Your task to perform on an android device: change the clock display to analog Image 0: 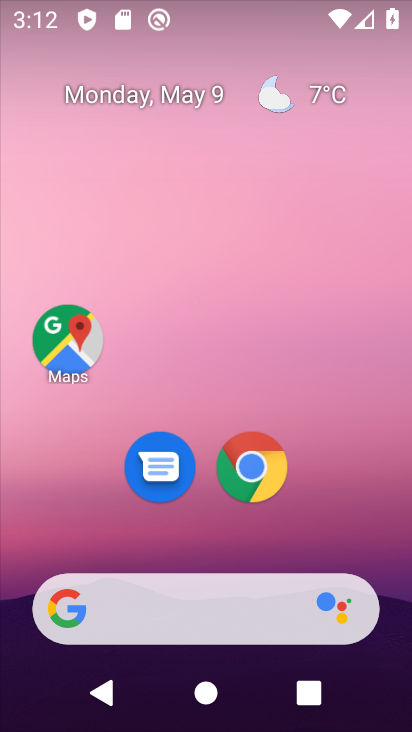
Step 0: drag from (350, 523) to (344, 153)
Your task to perform on an android device: change the clock display to analog Image 1: 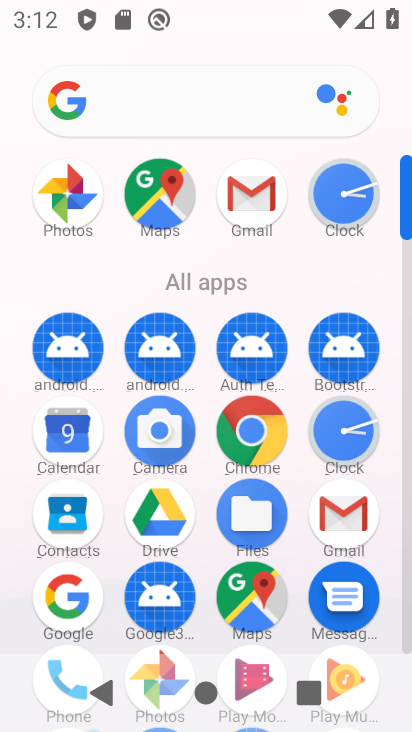
Step 1: click (353, 429)
Your task to perform on an android device: change the clock display to analog Image 2: 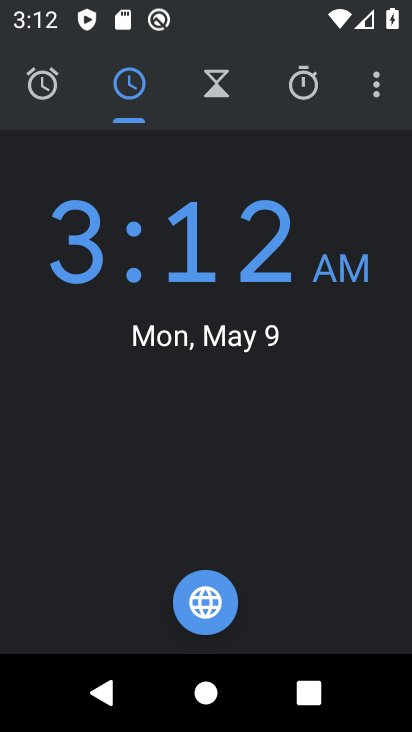
Step 2: click (370, 91)
Your task to perform on an android device: change the clock display to analog Image 3: 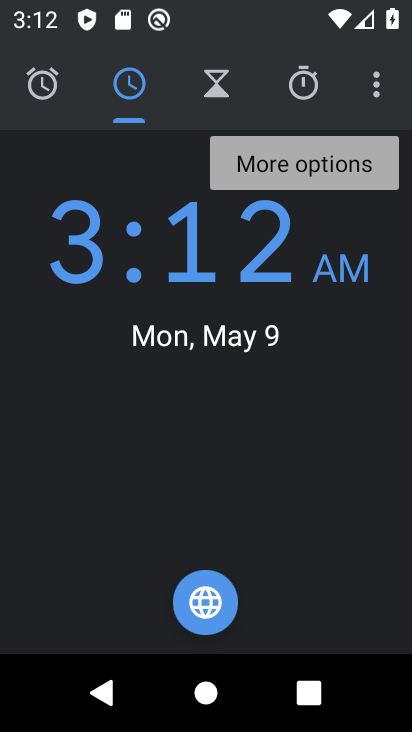
Step 3: click (377, 89)
Your task to perform on an android device: change the clock display to analog Image 4: 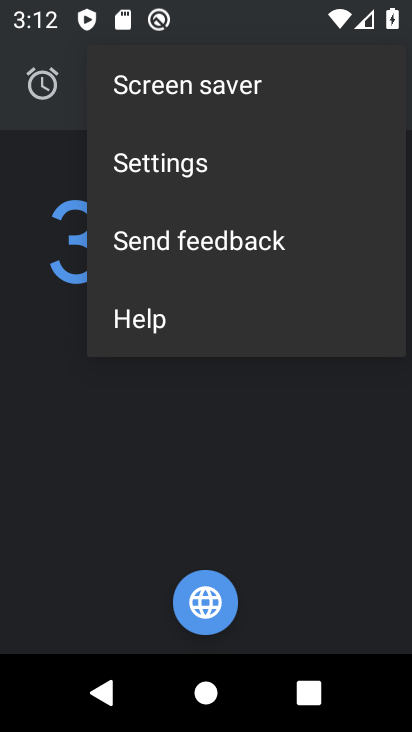
Step 4: click (206, 166)
Your task to perform on an android device: change the clock display to analog Image 5: 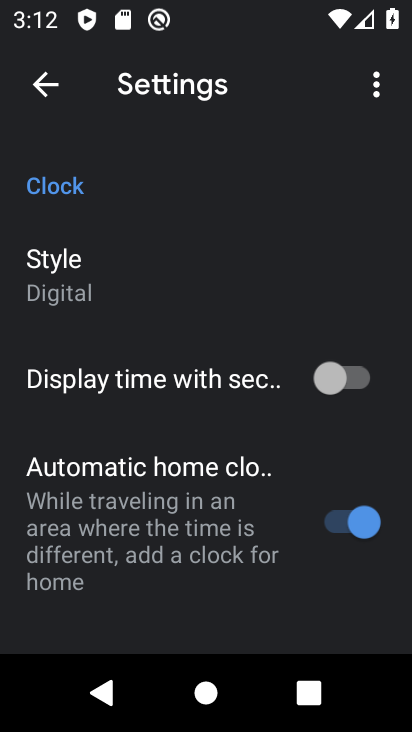
Step 5: click (89, 283)
Your task to perform on an android device: change the clock display to analog Image 6: 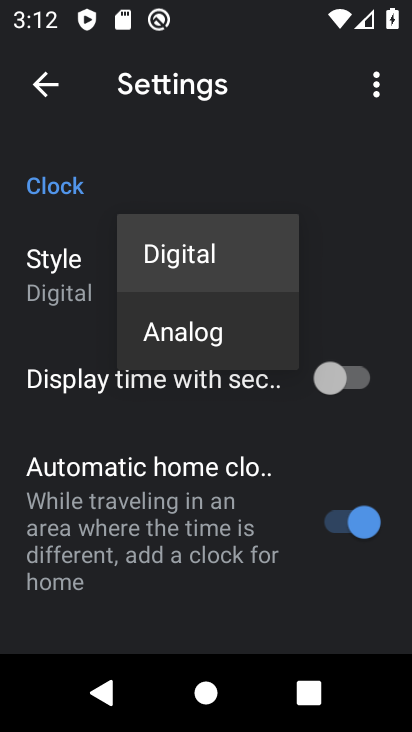
Step 6: click (151, 335)
Your task to perform on an android device: change the clock display to analog Image 7: 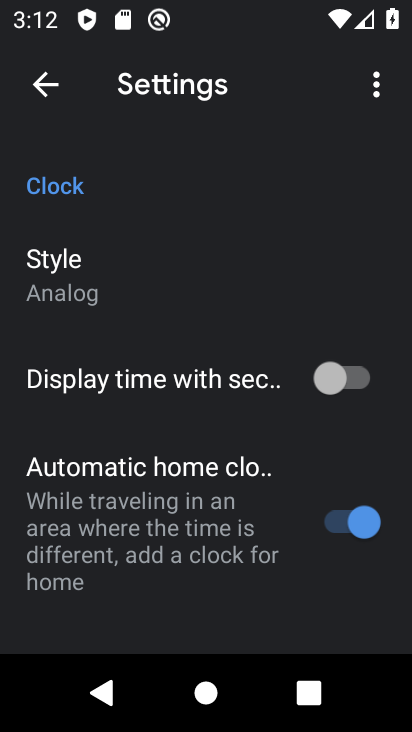
Step 7: task complete